Your task to perform on an android device: Go to Amazon Image 0: 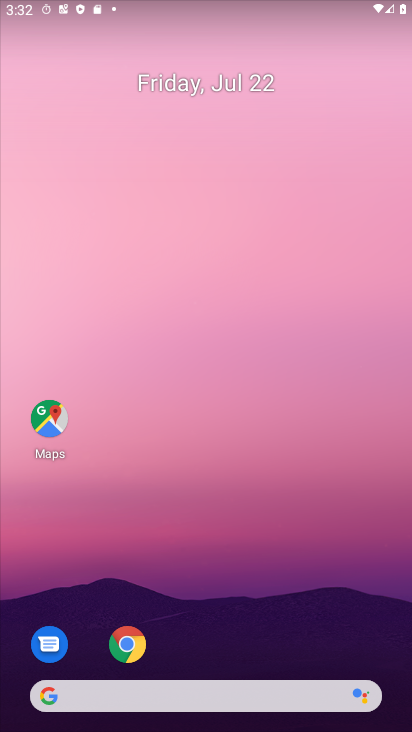
Step 0: press home button
Your task to perform on an android device: Go to Amazon Image 1: 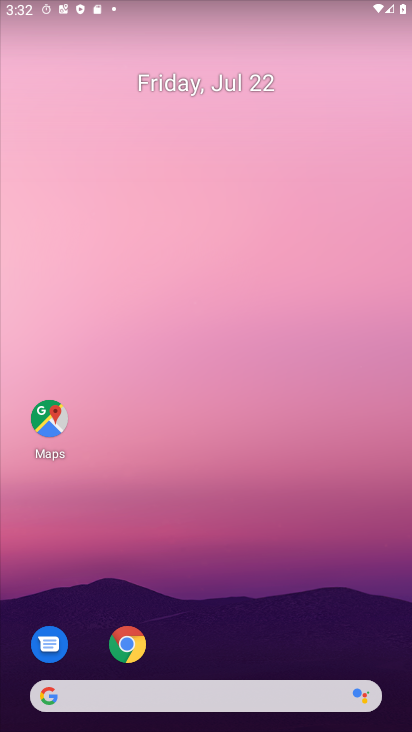
Step 1: click (41, 694)
Your task to perform on an android device: Go to Amazon Image 2: 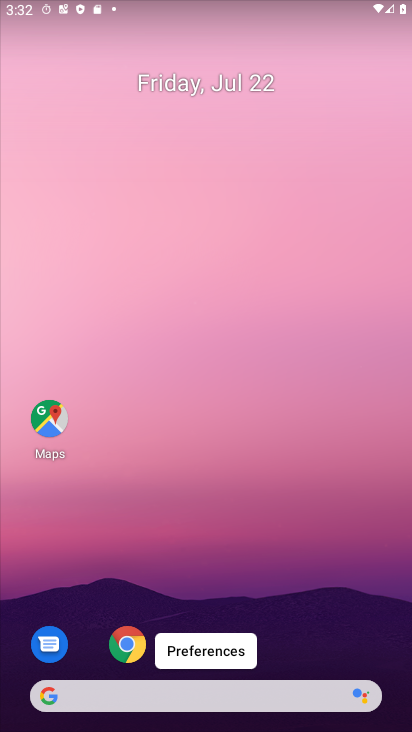
Step 2: click (41, 694)
Your task to perform on an android device: Go to Amazon Image 3: 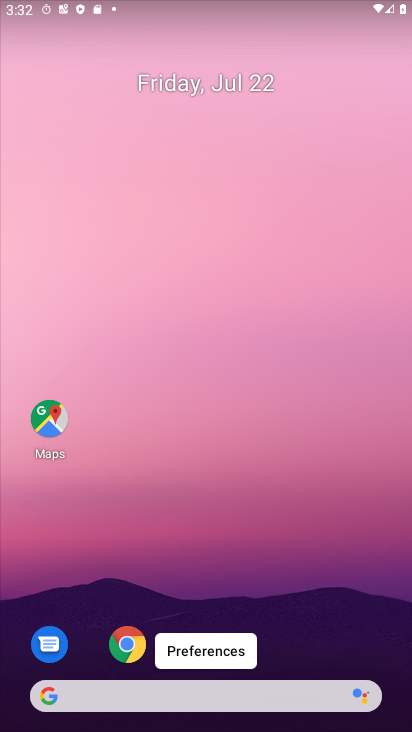
Step 3: click (41, 694)
Your task to perform on an android device: Go to Amazon Image 4: 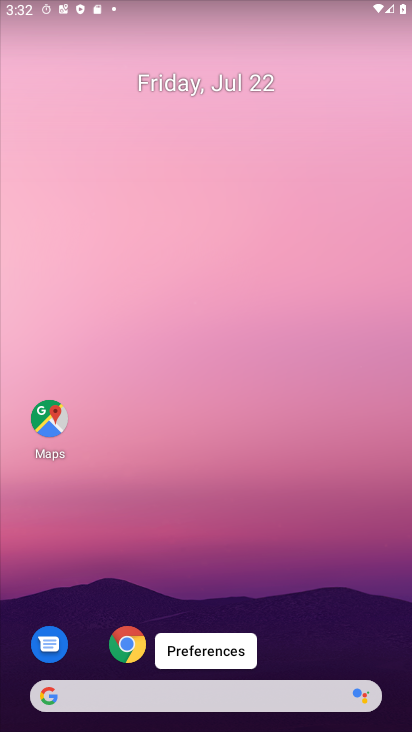
Step 4: click (52, 687)
Your task to perform on an android device: Go to Amazon Image 5: 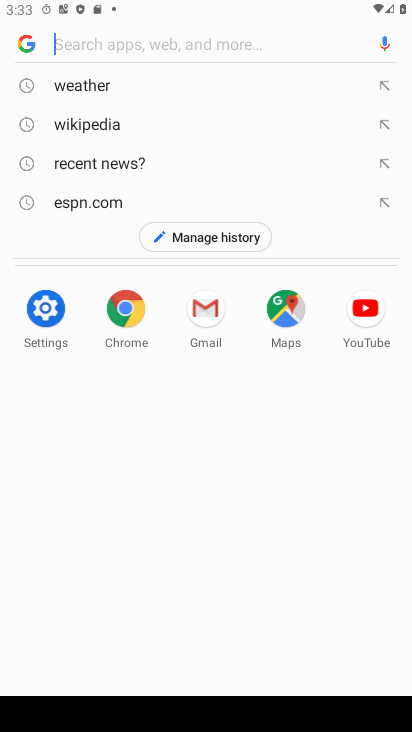
Step 5: type " Amazon"
Your task to perform on an android device: Go to Amazon Image 6: 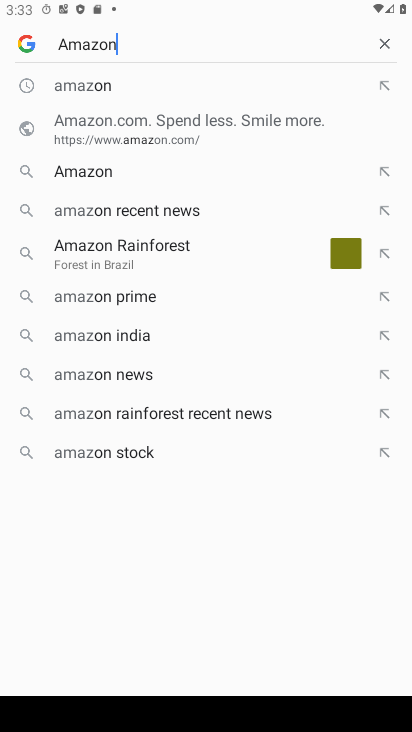
Step 6: press enter
Your task to perform on an android device: Go to Amazon Image 7: 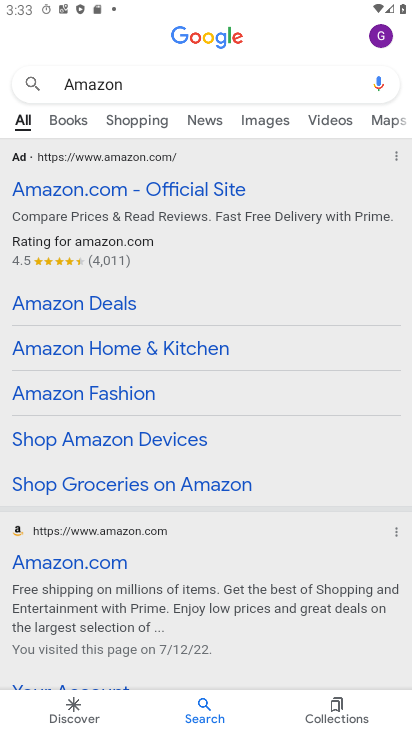
Step 7: click (67, 193)
Your task to perform on an android device: Go to Amazon Image 8: 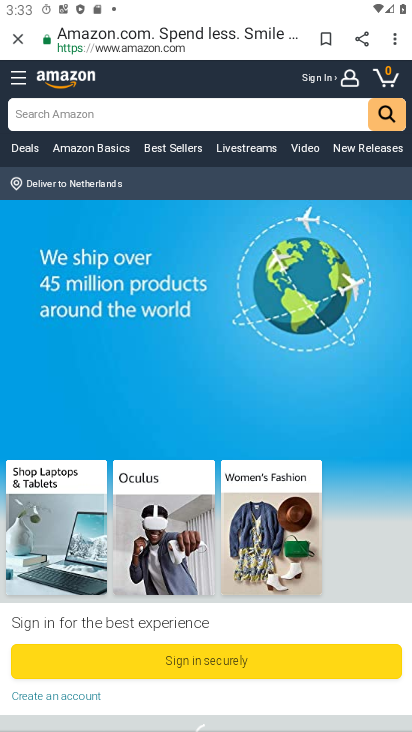
Step 8: task complete